Your task to perform on an android device: change alarm snooze length Image 0: 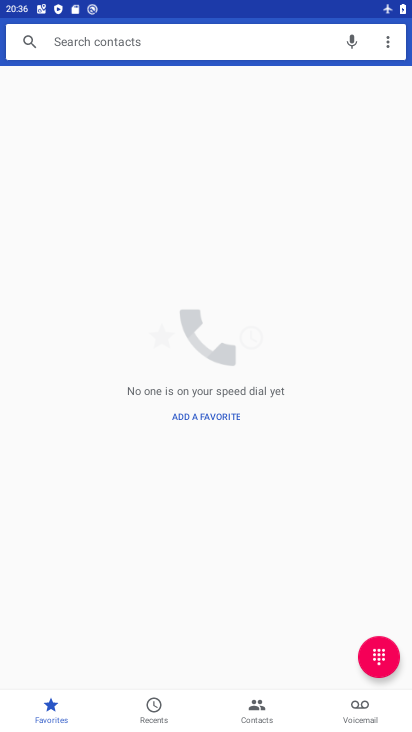
Step 0: press home button
Your task to perform on an android device: change alarm snooze length Image 1: 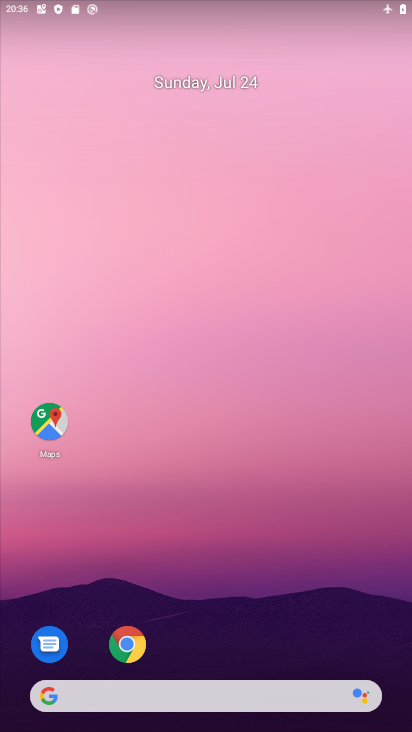
Step 1: drag from (344, 637) to (329, 10)
Your task to perform on an android device: change alarm snooze length Image 2: 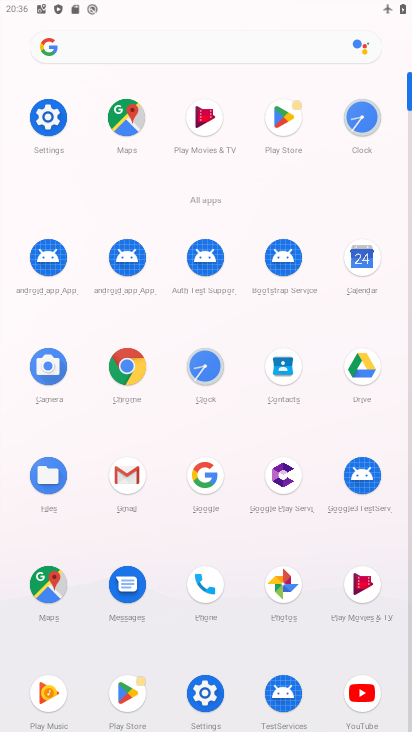
Step 2: click (204, 366)
Your task to perform on an android device: change alarm snooze length Image 3: 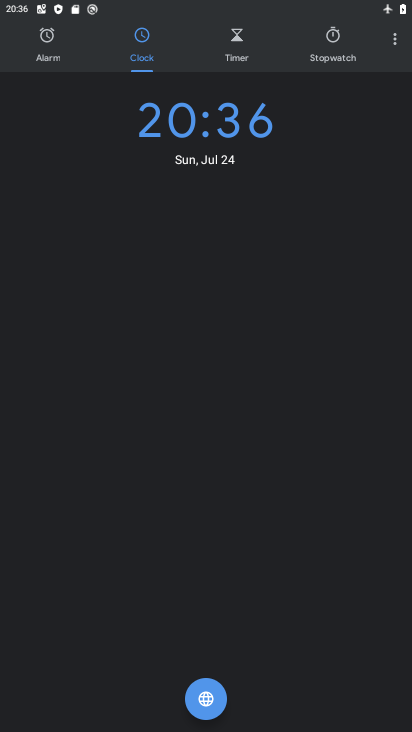
Step 3: click (395, 47)
Your task to perform on an android device: change alarm snooze length Image 4: 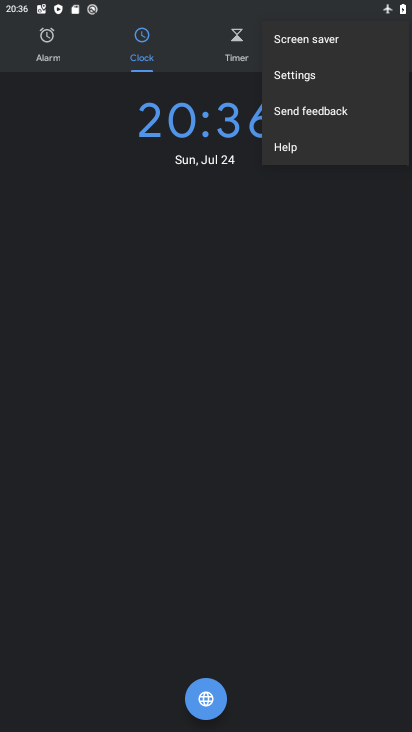
Step 4: click (291, 75)
Your task to perform on an android device: change alarm snooze length Image 5: 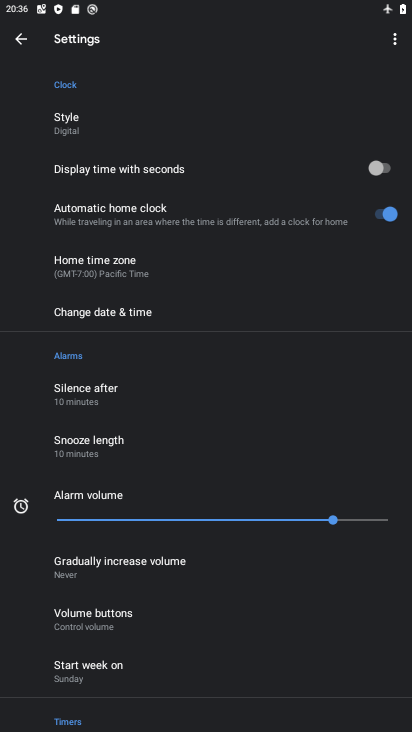
Step 5: click (110, 433)
Your task to perform on an android device: change alarm snooze length Image 6: 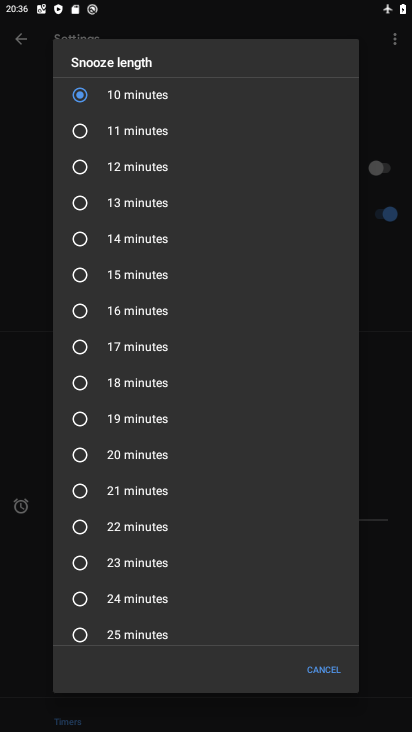
Step 6: click (78, 283)
Your task to perform on an android device: change alarm snooze length Image 7: 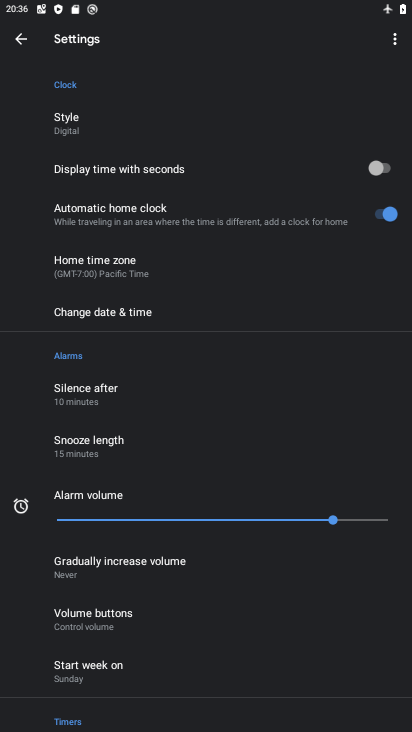
Step 7: task complete